Your task to perform on an android device: change text size in settings app Image 0: 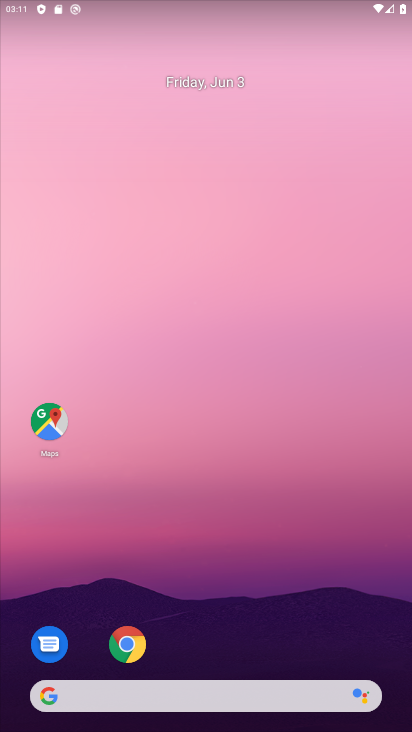
Step 0: press home button
Your task to perform on an android device: change text size in settings app Image 1: 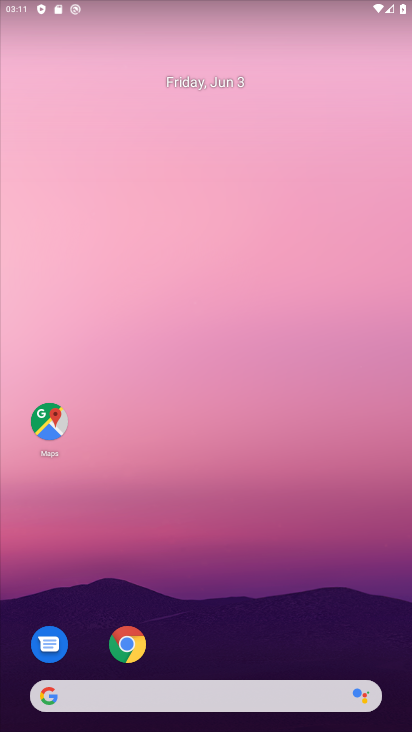
Step 1: press home button
Your task to perform on an android device: change text size in settings app Image 2: 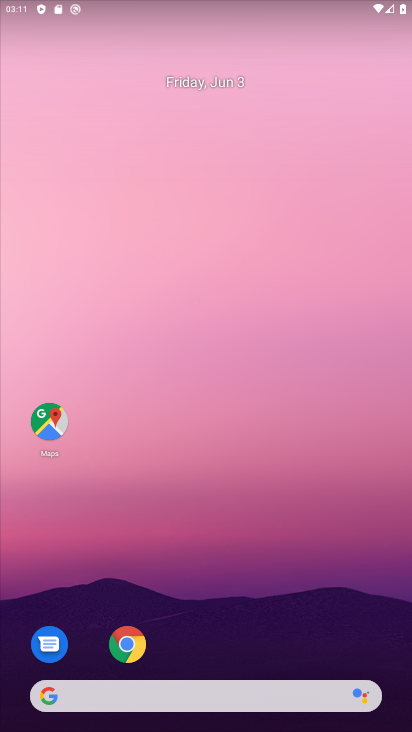
Step 2: press home button
Your task to perform on an android device: change text size in settings app Image 3: 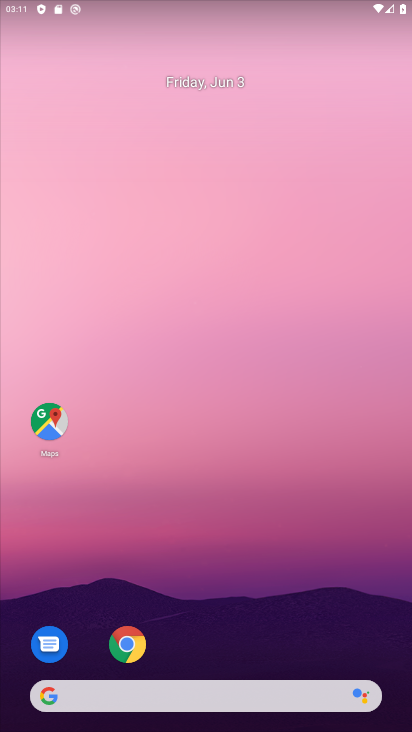
Step 3: press home button
Your task to perform on an android device: change text size in settings app Image 4: 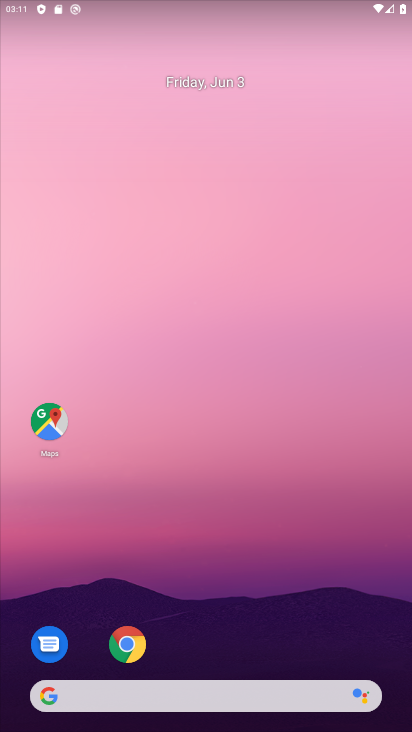
Step 4: press home button
Your task to perform on an android device: change text size in settings app Image 5: 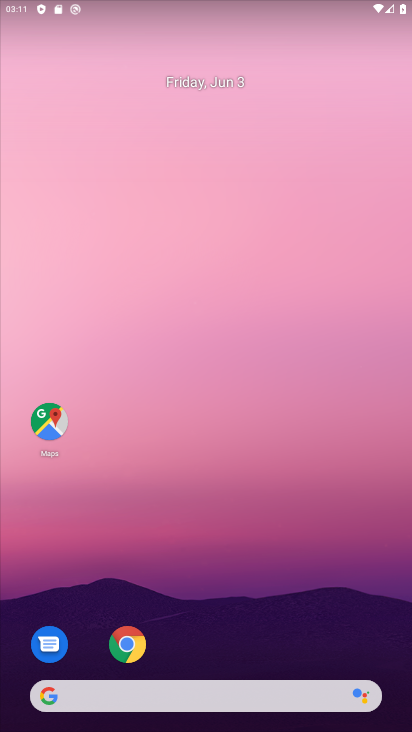
Step 5: drag from (254, 642) to (344, 74)
Your task to perform on an android device: change text size in settings app Image 6: 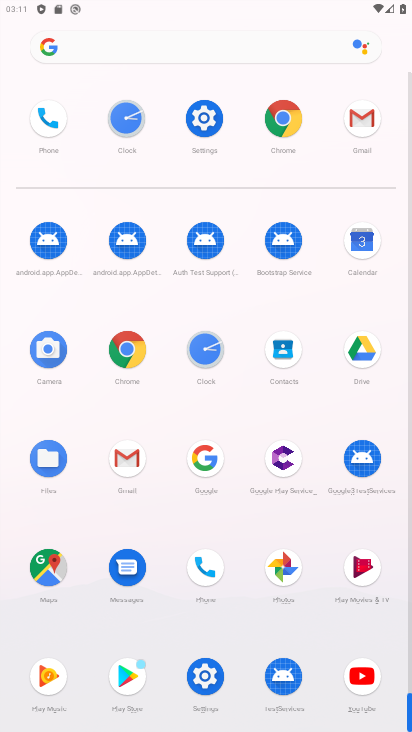
Step 6: click (204, 112)
Your task to perform on an android device: change text size in settings app Image 7: 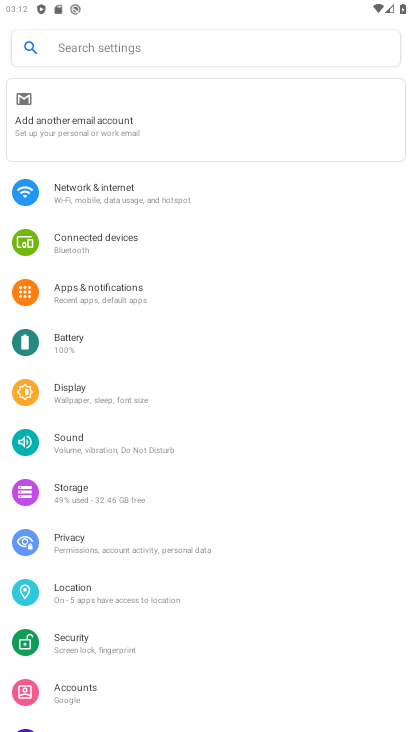
Step 7: click (42, 402)
Your task to perform on an android device: change text size in settings app Image 8: 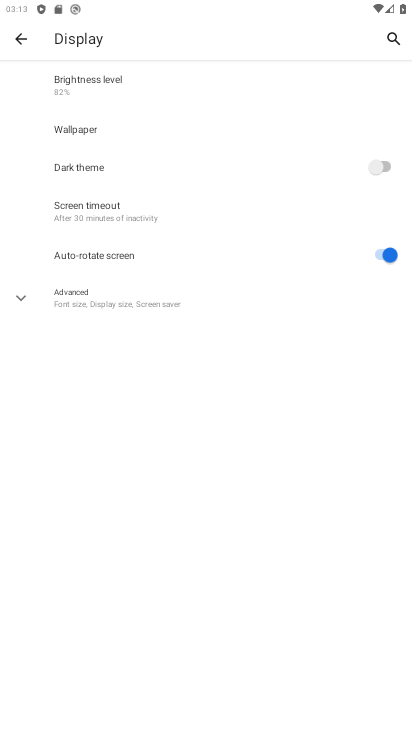
Step 8: click (95, 291)
Your task to perform on an android device: change text size in settings app Image 9: 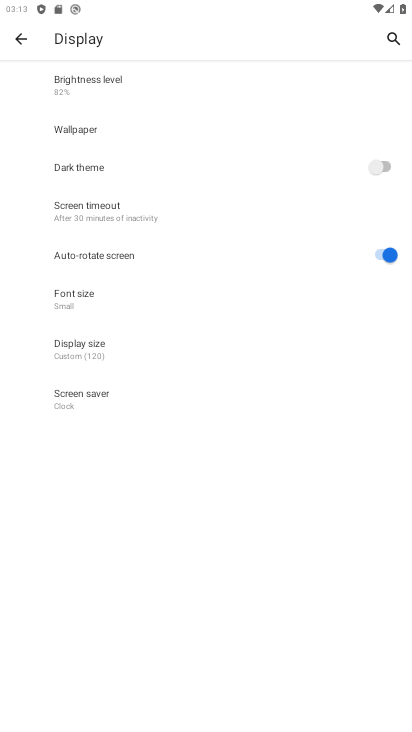
Step 9: click (99, 299)
Your task to perform on an android device: change text size in settings app Image 10: 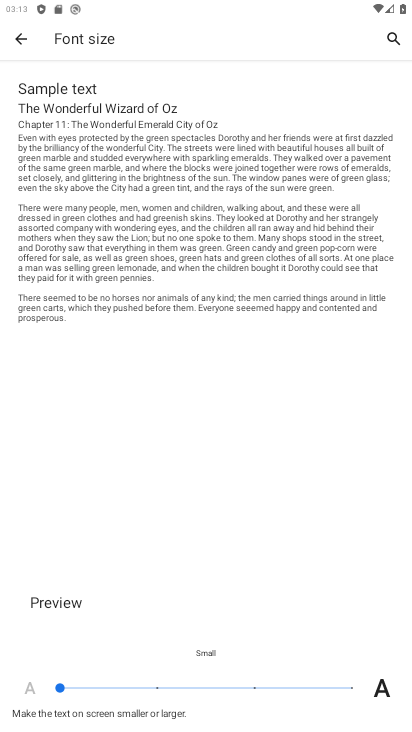
Step 10: click (388, 685)
Your task to perform on an android device: change text size in settings app Image 11: 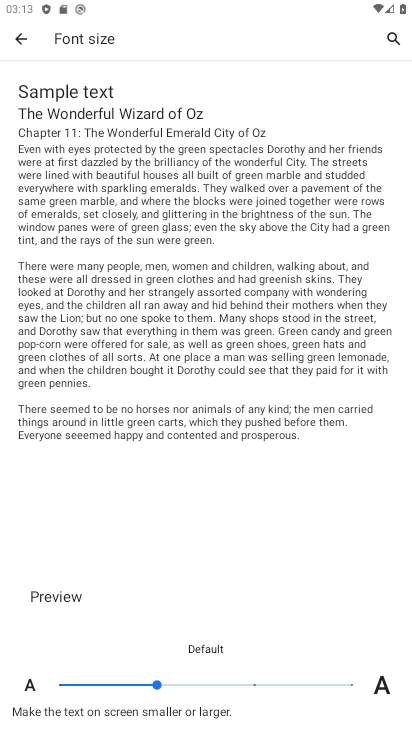
Step 11: task complete